Your task to perform on an android device: Go to Google Image 0: 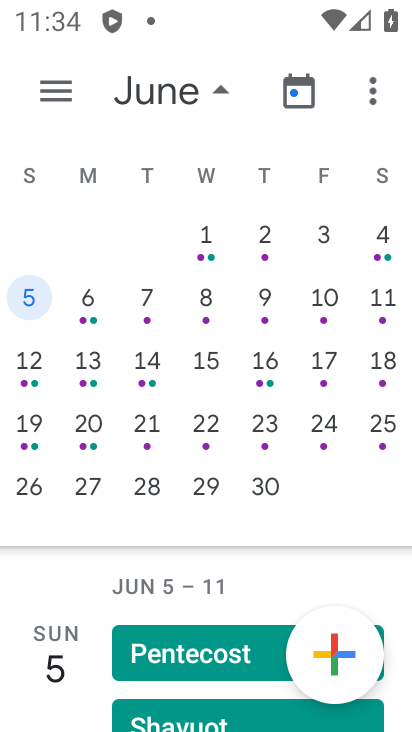
Step 0: press home button
Your task to perform on an android device: Go to Google Image 1: 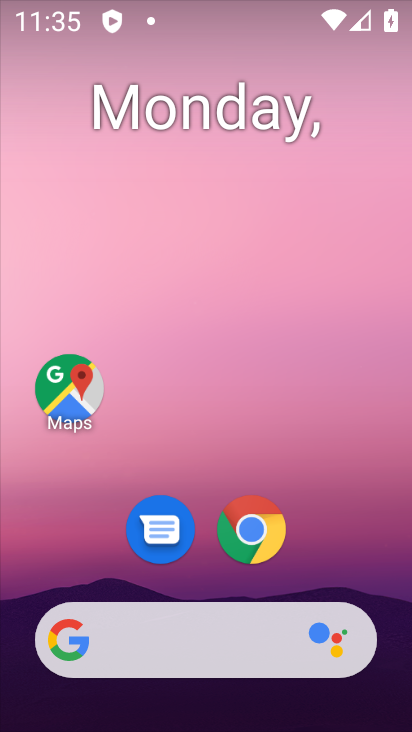
Step 1: drag from (354, 550) to (369, 121)
Your task to perform on an android device: Go to Google Image 2: 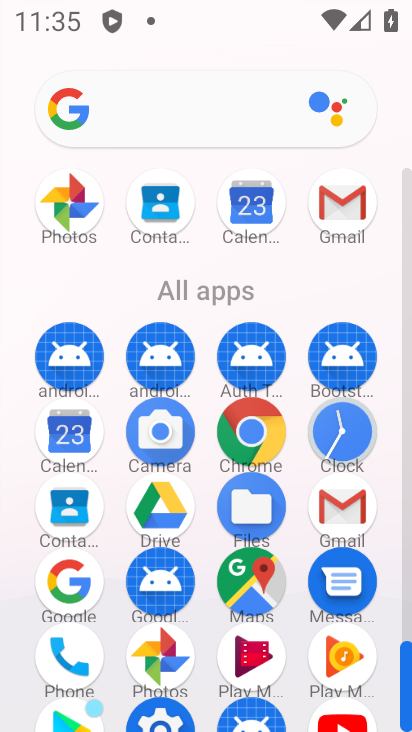
Step 2: click (53, 582)
Your task to perform on an android device: Go to Google Image 3: 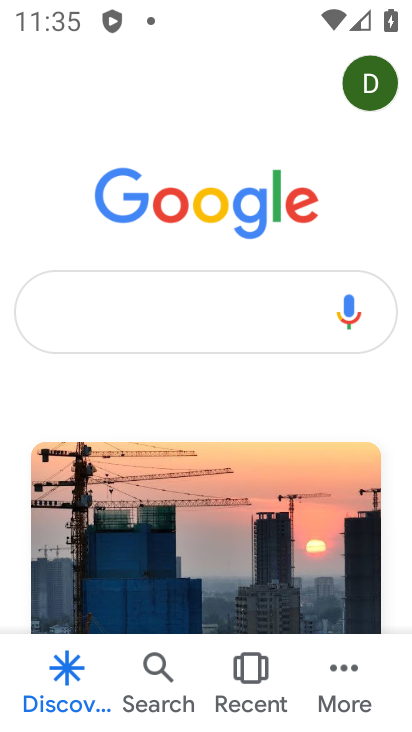
Step 3: click (209, 322)
Your task to perform on an android device: Go to Google Image 4: 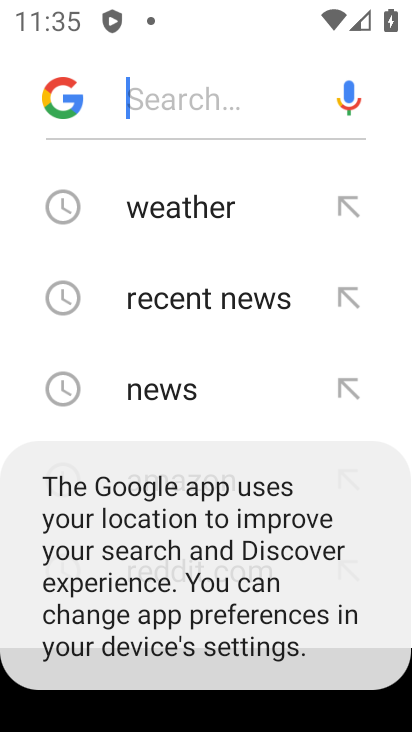
Step 4: task complete